Your task to perform on an android device: Clear the shopping cart on newegg. Image 0: 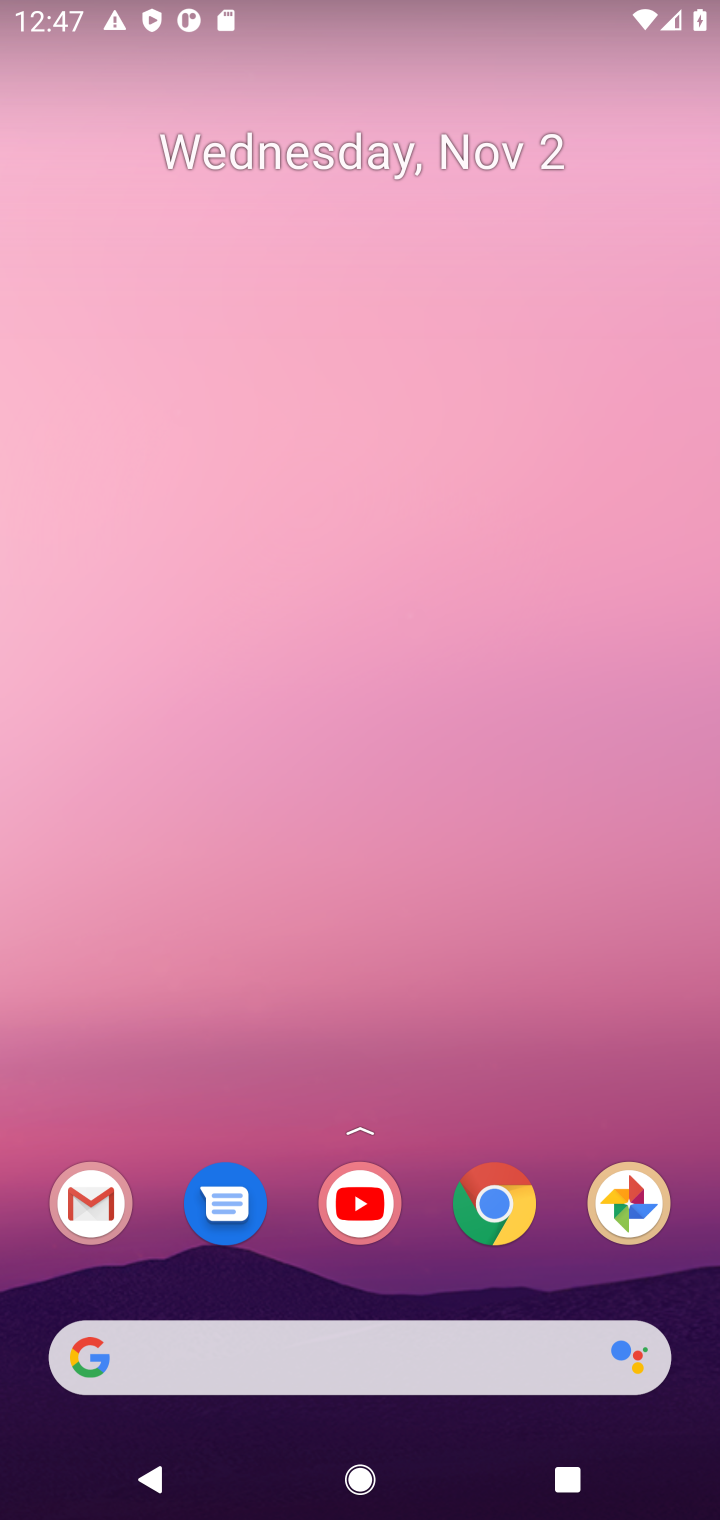
Step 0: click (230, 513)
Your task to perform on an android device: Clear the shopping cart on newegg. Image 1: 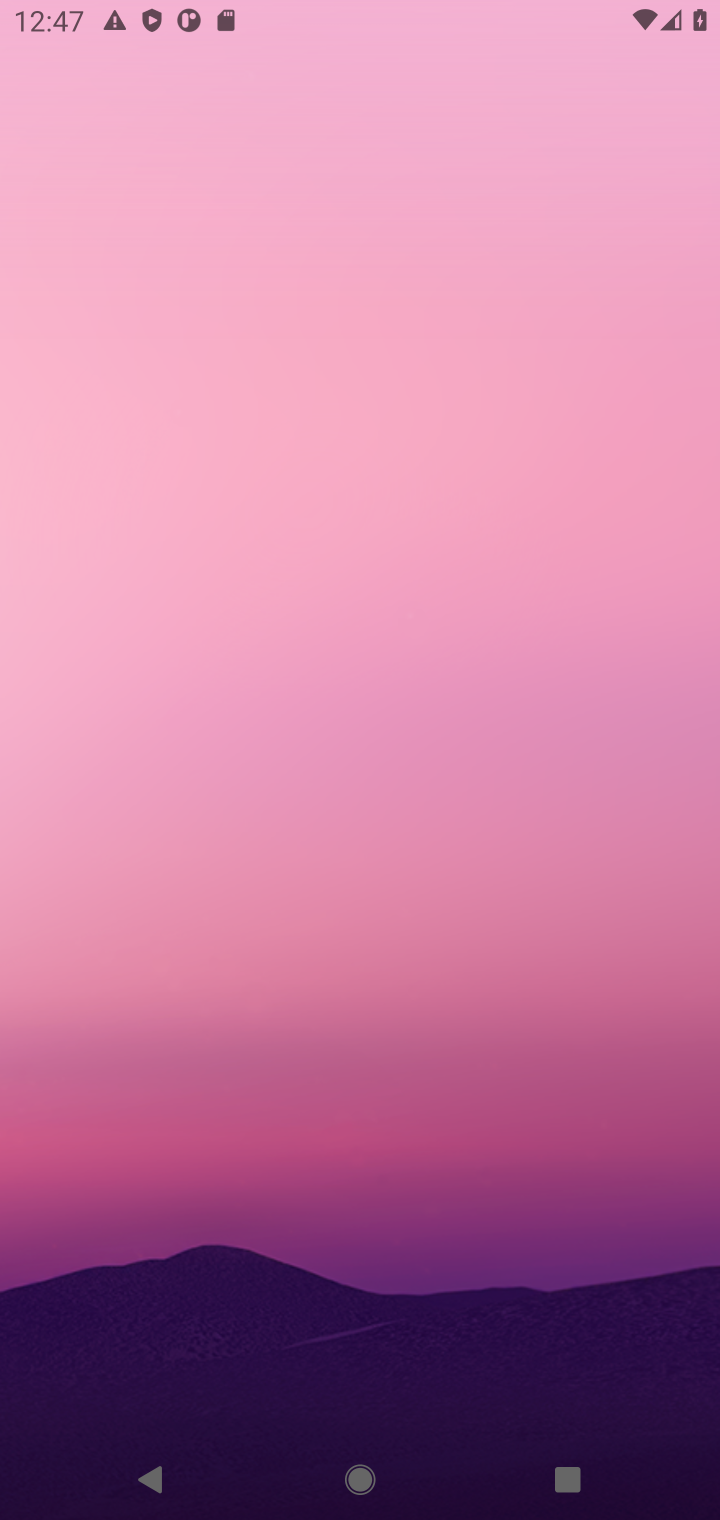
Step 1: drag from (424, 1312) to (439, 13)
Your task to perform on an android device: Clear the shopping cart on newegg. Image 2: 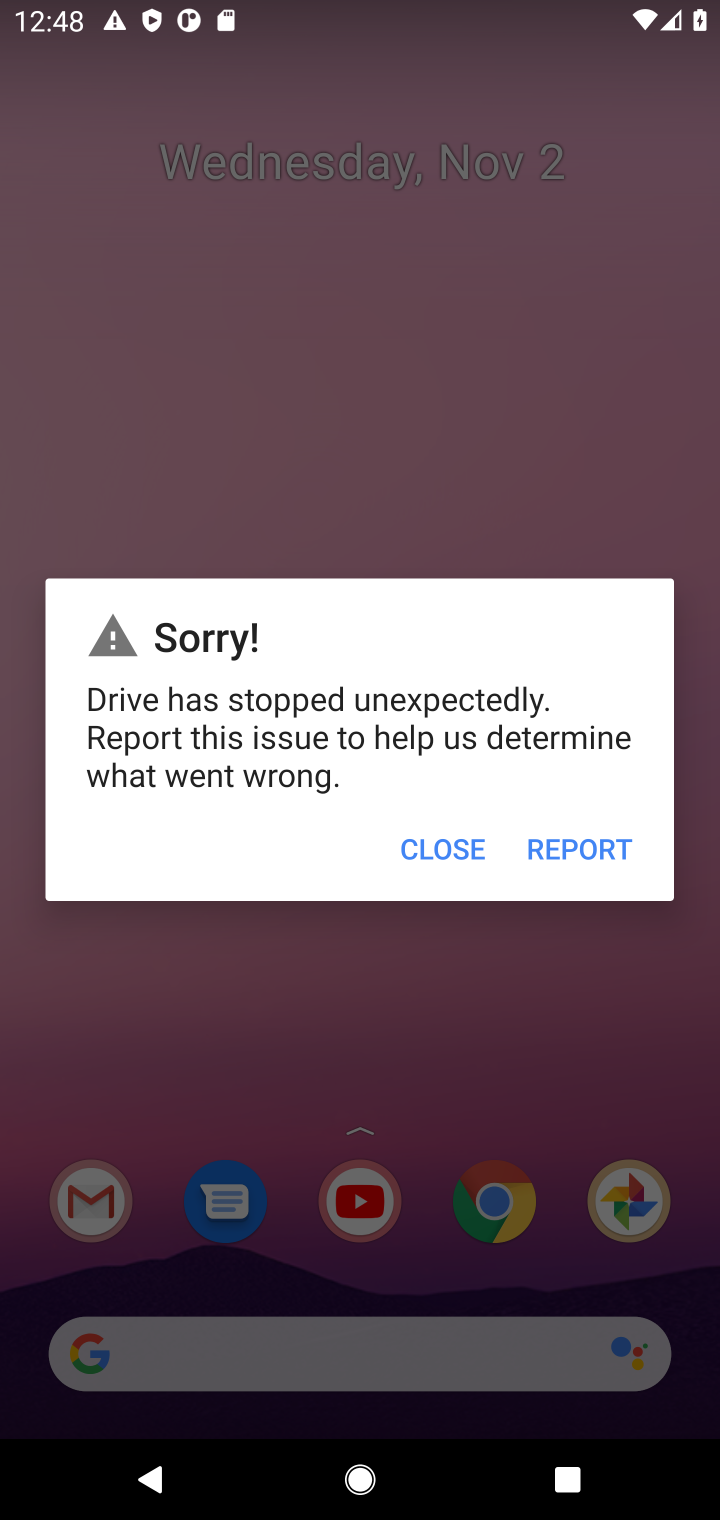
Step 2: click (465, 836)
Your task to perform on an android device: Clear the shopping cart on newegg. Image 3: 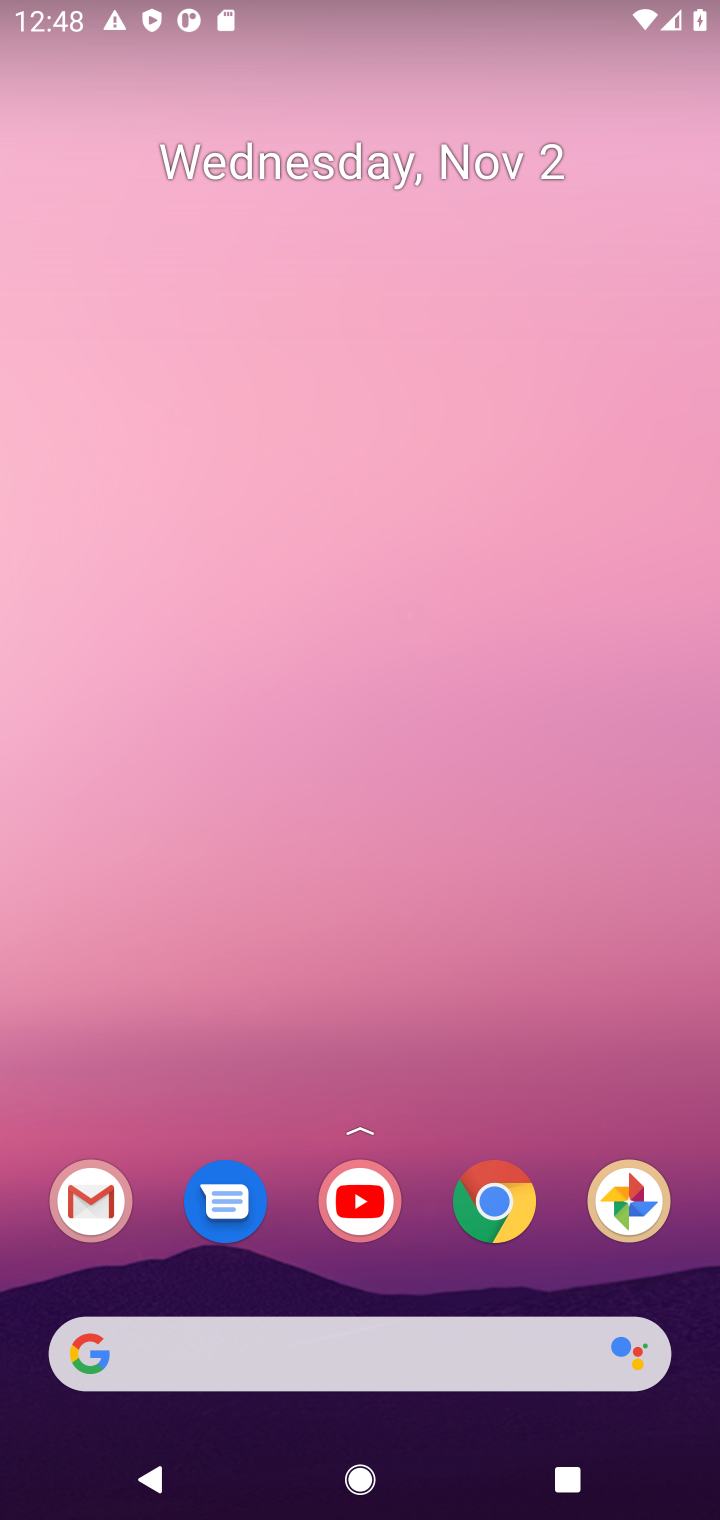
Step 3: drag from (391, 467) to (388, 66)
Your task to perform on an android device: Clear the shopping cart on newegg. Image 4: 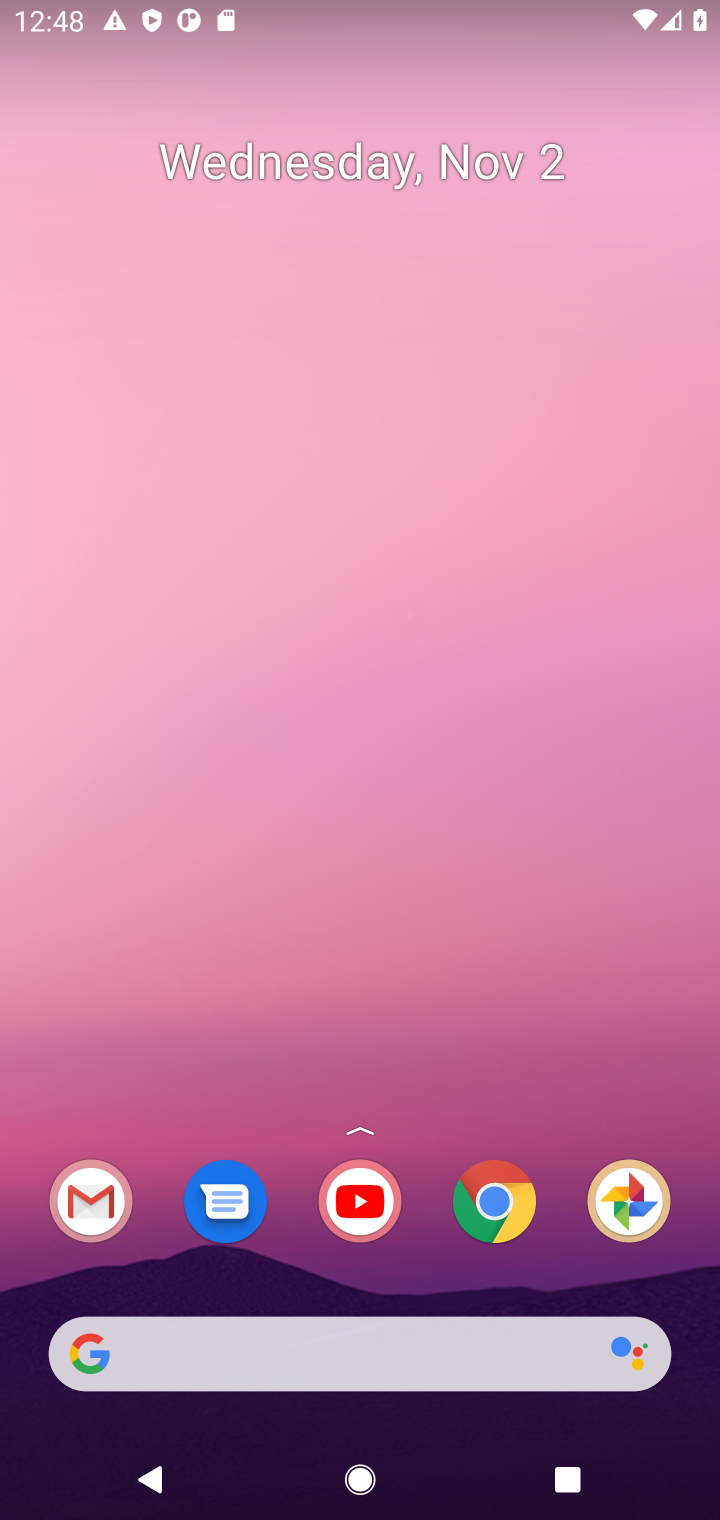
Step 4: drag from (453, 946) to (474, 30)
Your task to perform on an android device: Clear the shopping cart on newegg. Image 5: 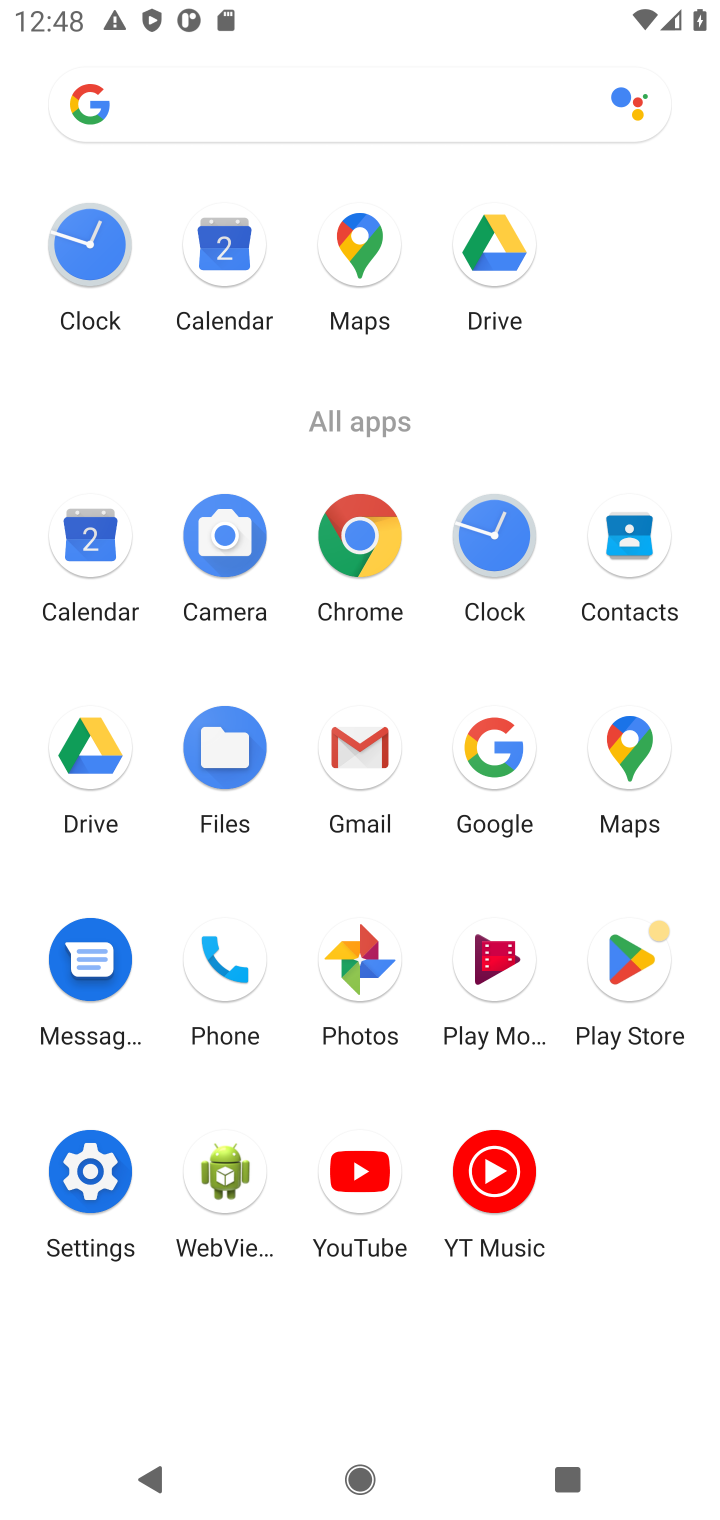
Step 5: click (498, 744)
Your task to perform on an android device: Clear the shopping cart on newegg. Image 6: 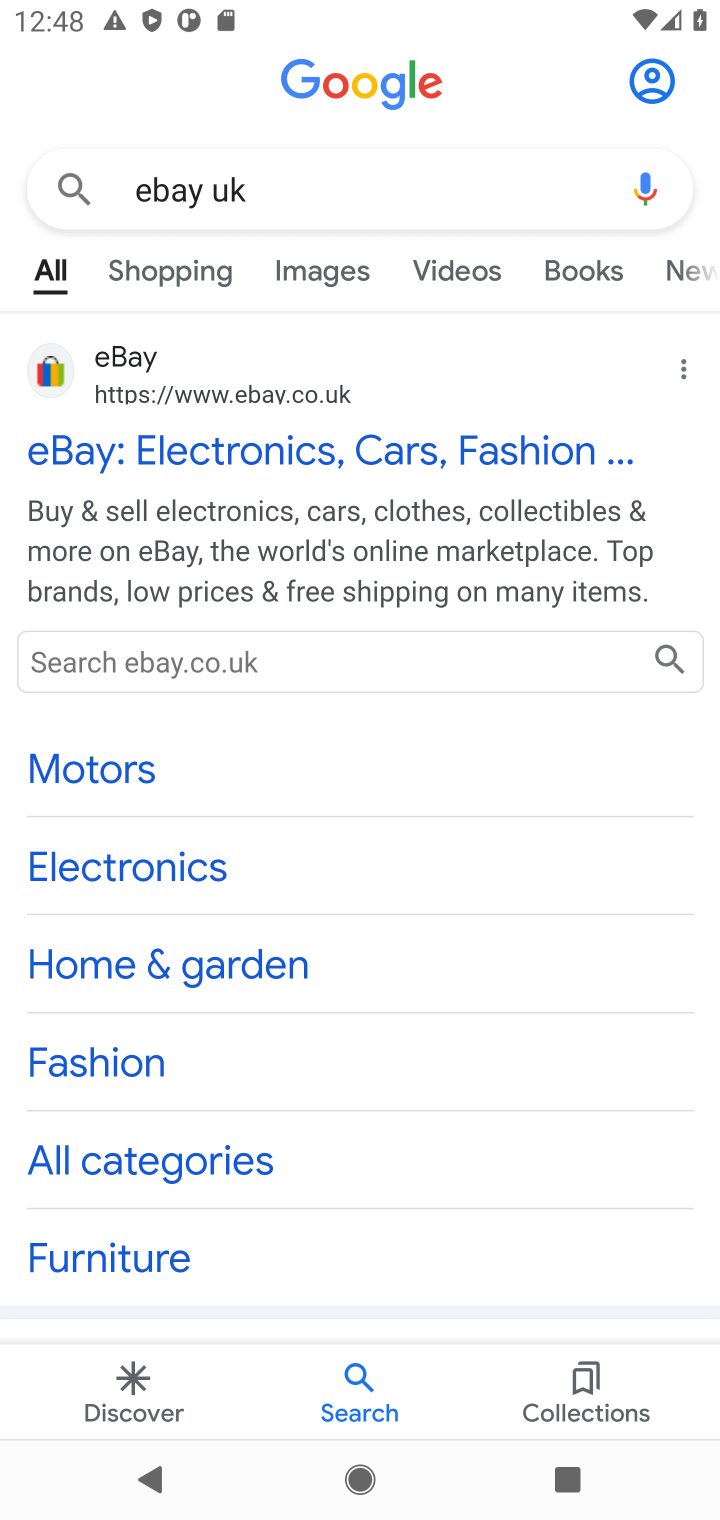
Step 6: click (194, 174)
Your task to perform on an android device: Clear the shopping cart on newegg. Image 7: 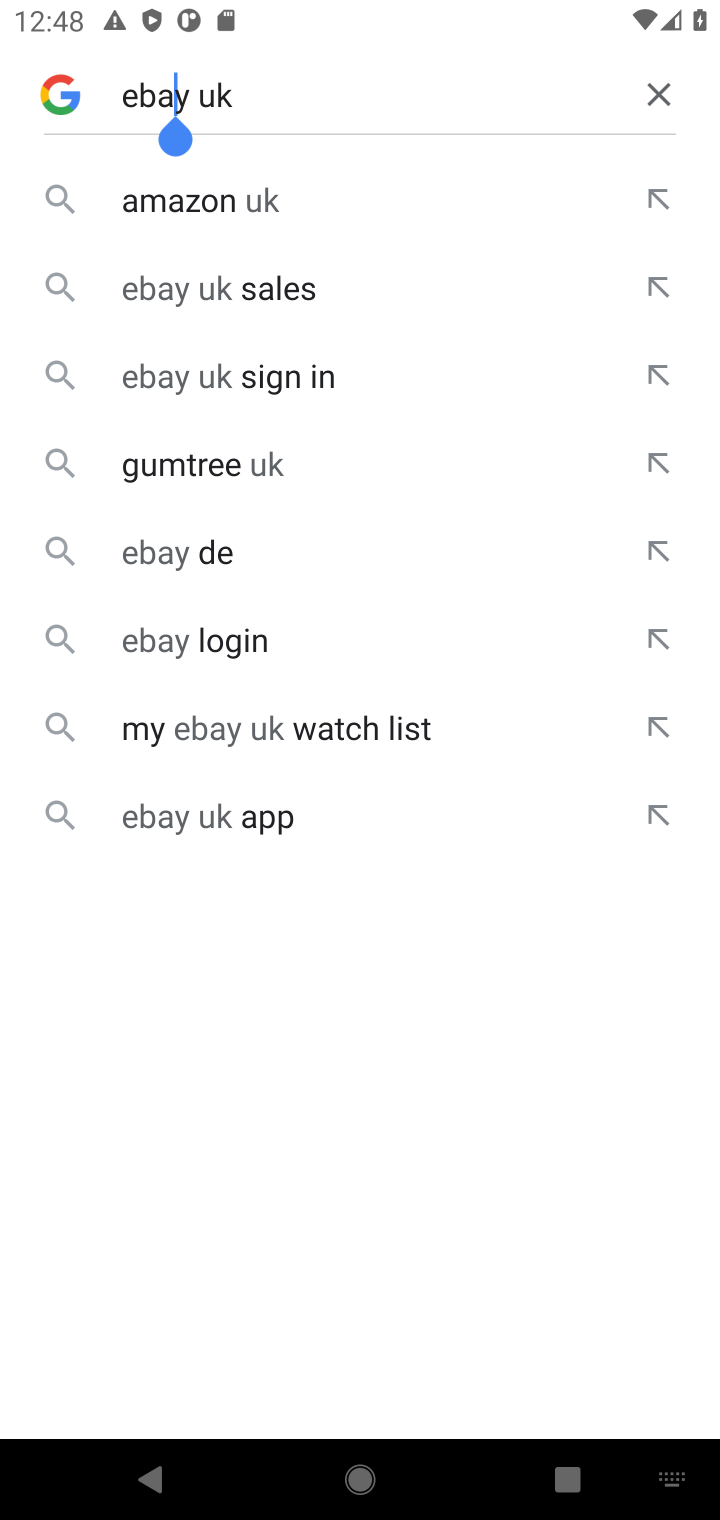
Step 7: click (668, 85)
Your task to perform on an android device: Clear the shopping cart on newegg. Image 8: 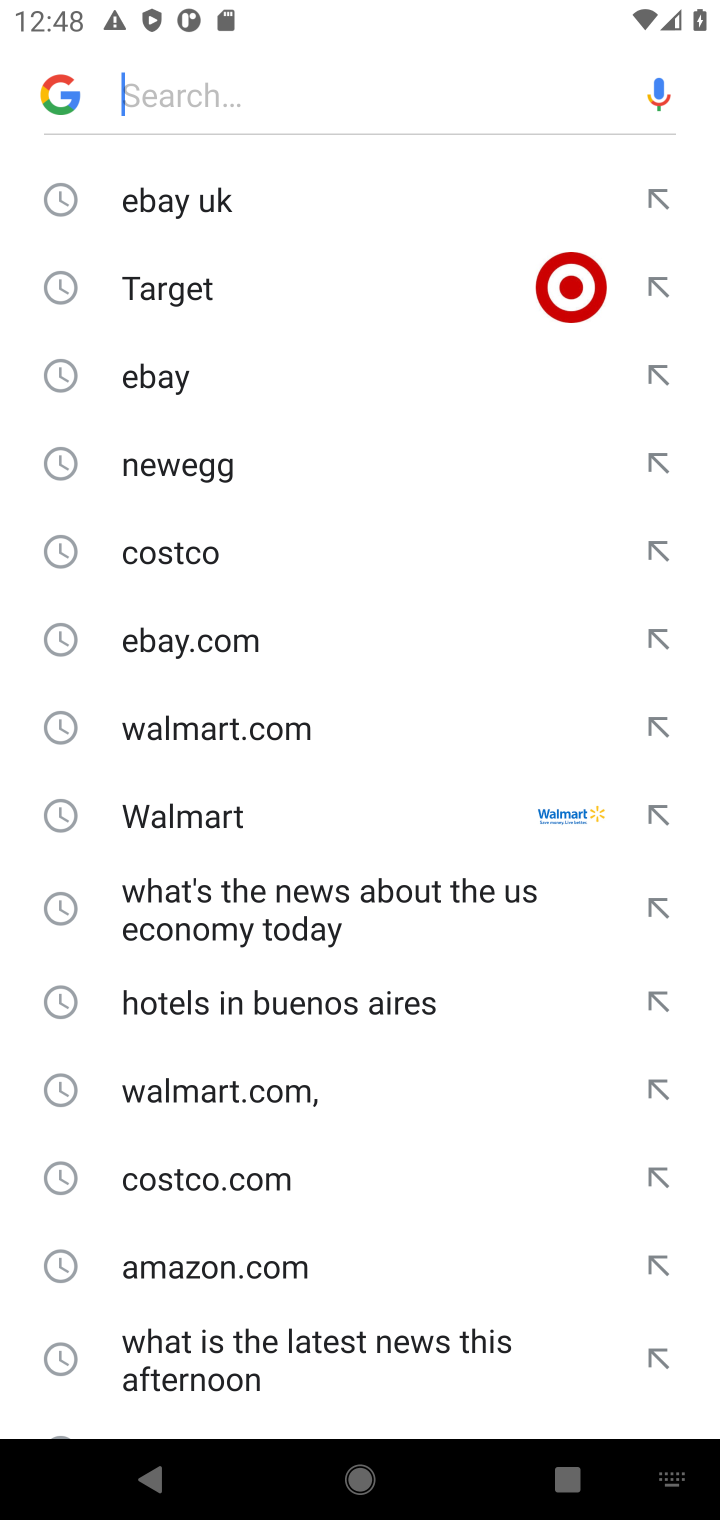
Step 8: click (155, 473)
Your task to perform on an android device: Clear the shopping cart on newegg. Image 9: 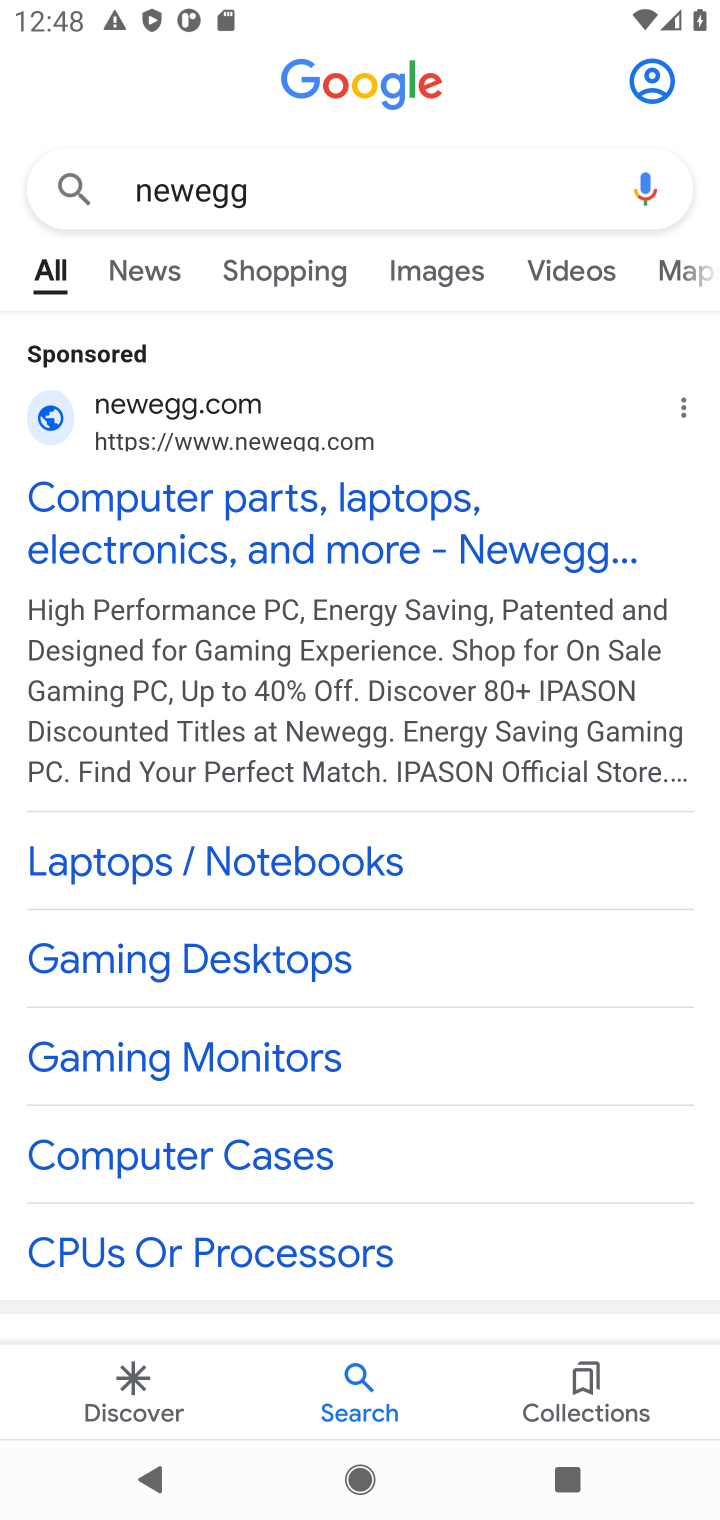
Step 9: click (168, 533)
Your task to perform on an android device: Clear the shopping cart on newegg. Image 10: 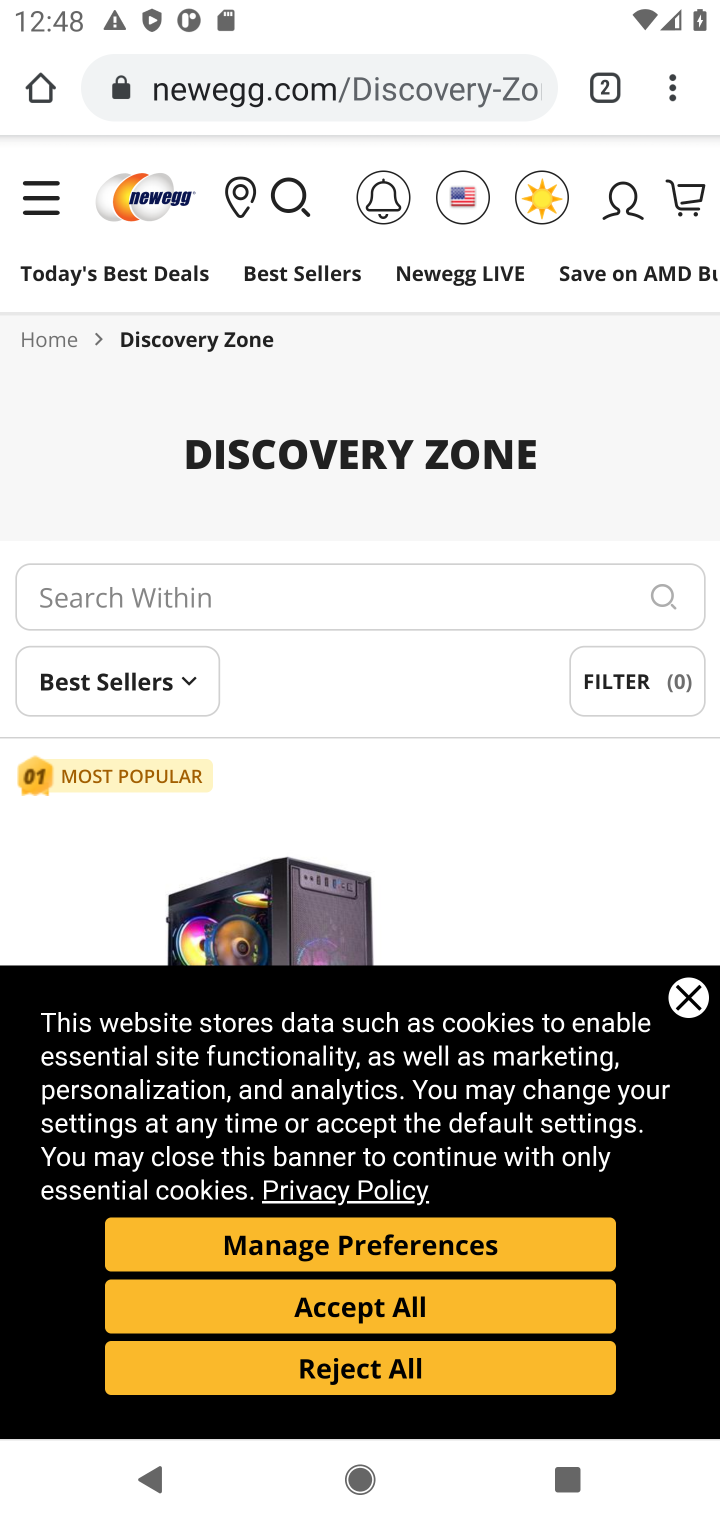
Step 10: task complete